Your task to perform on an android device: How do I get to the nearest McDonalds? Image 0: 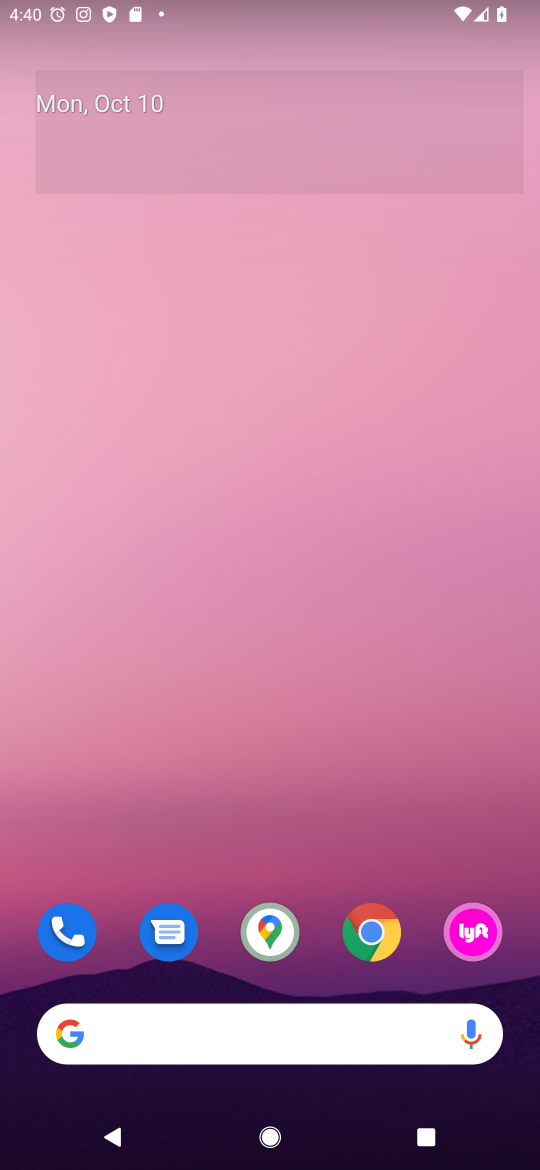
Step 0: press home button
Your task to perform on an android device: How do I get to the nearest McDonalds? Image 1: 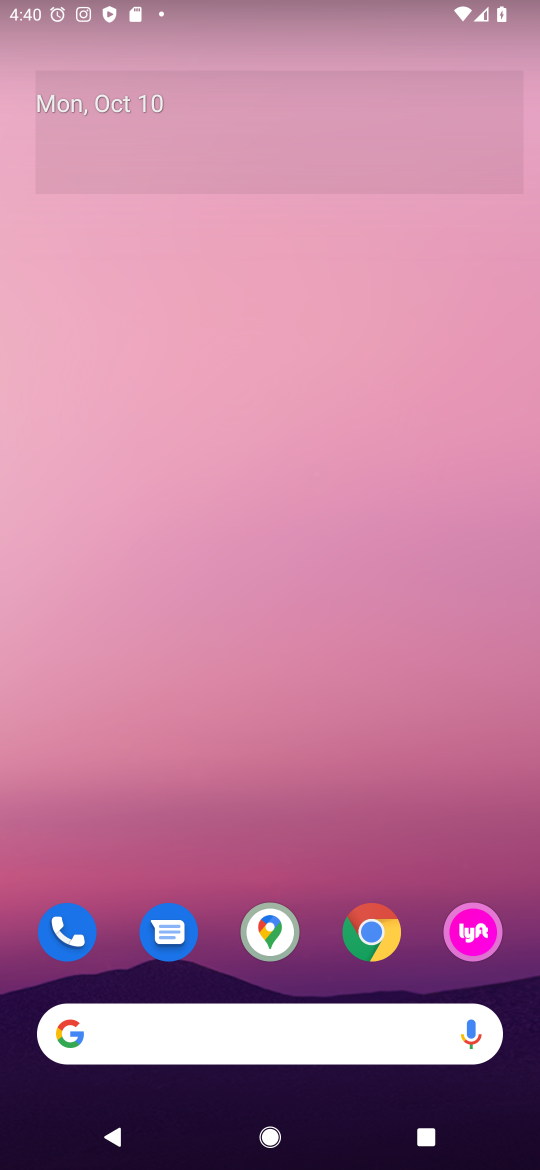
Step 1: click (354, 1032)
Your task to perform on an android device: How do I get to the nearest McDonalds? Image 2: 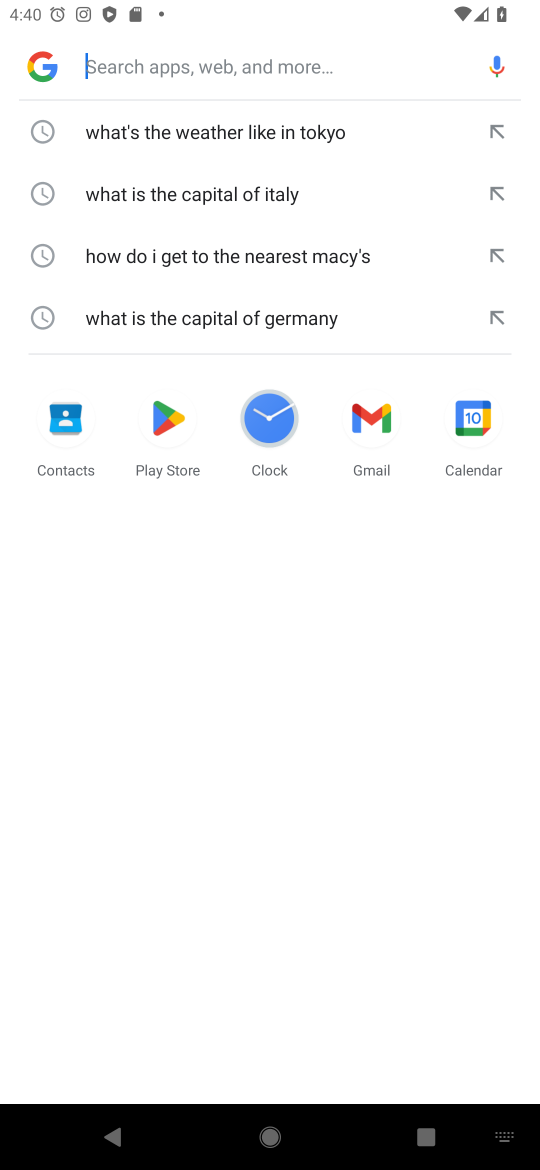
Step 2: type "How do I get to the nearest McDonalds"
Your task to perform on an android device: How do I get to the nearest McDonalds? Image 3: 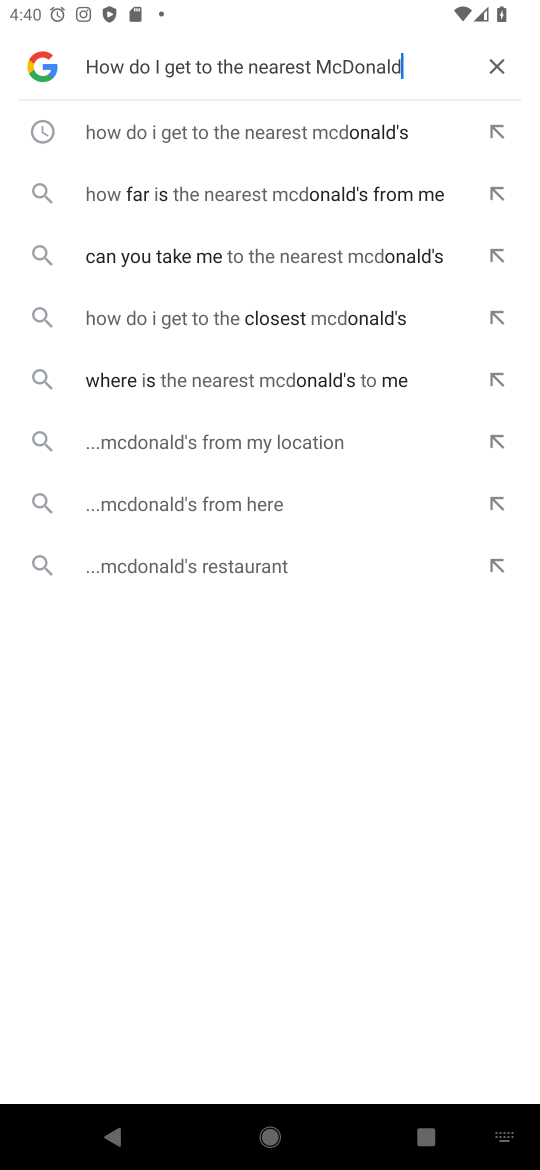
Step 3: press enter
Your task to perform on an android device: How do I get to the nearest McDonalds? Image 4: 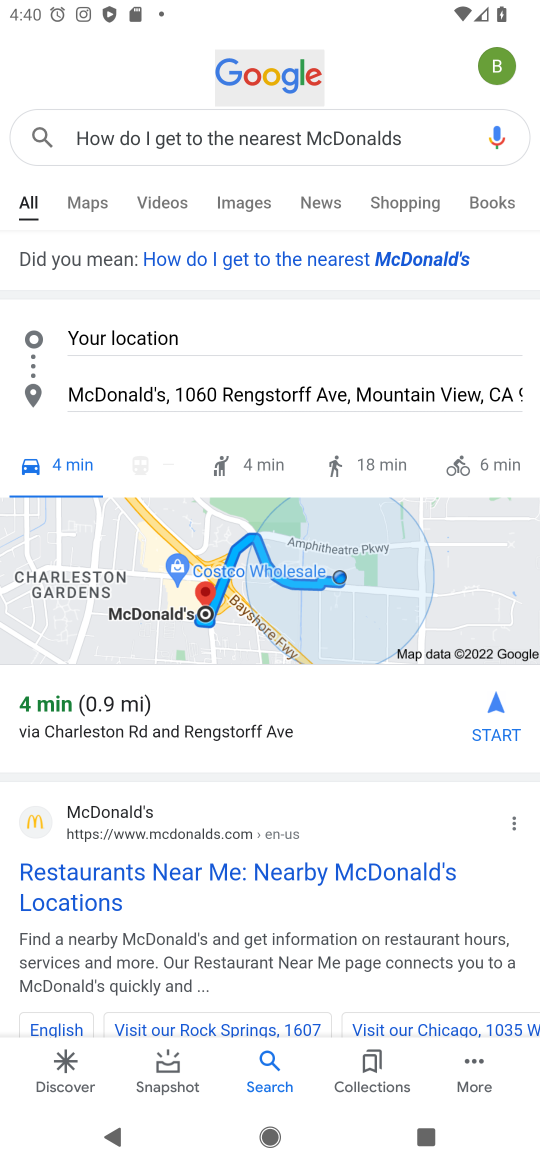
Step 4: task complete